Your task to perform on an android device: Open sound settings Image 0: 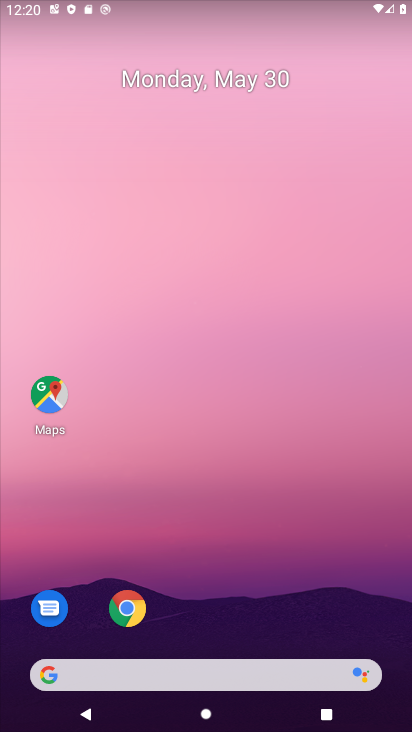
Step 0: drag from (255, 622) to (252, 50)
Your task to perform on an android device: Open sound settings Image 1: 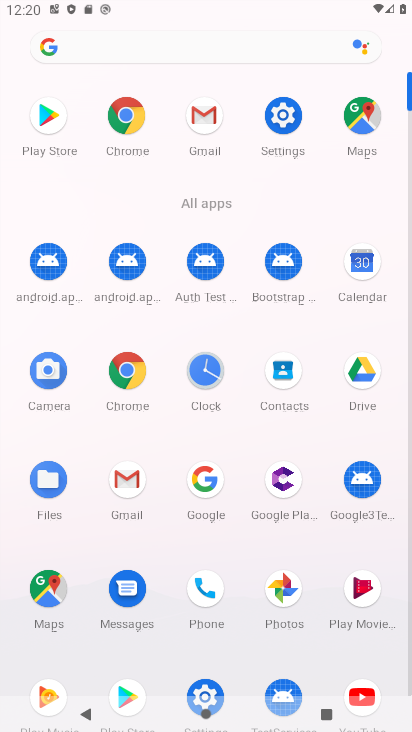
Step 1: click (284, 121)
Your task to perform on an android device: Open sound settings Image 2: 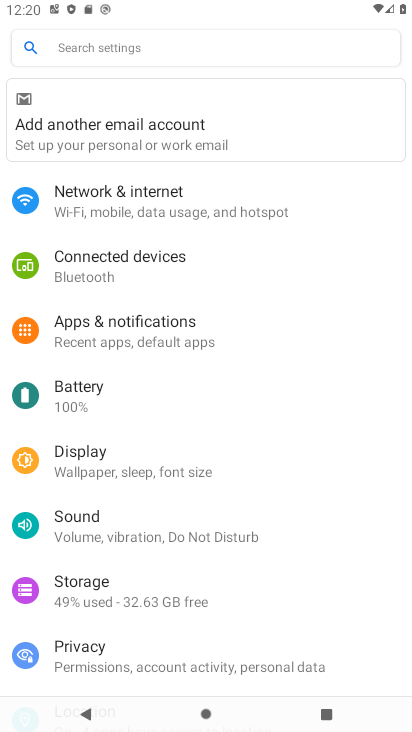
Step 2: click (138, 518)
Your task to perform on an android device: Open sound settings Image 3: 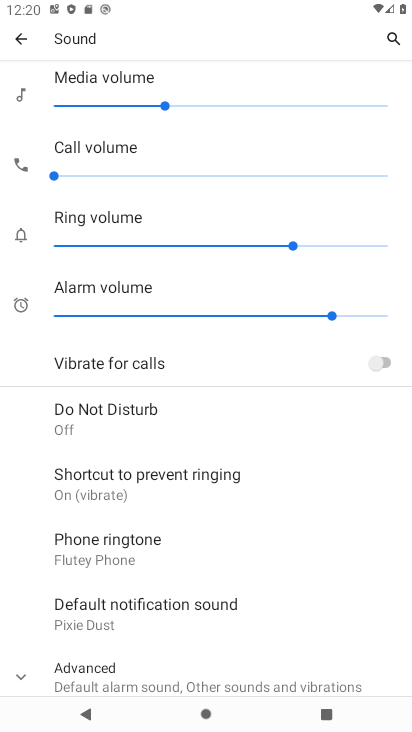
Step 3: task complete